Your task to perform on an android device: toggle notifications settings in the gmail app Image 0: 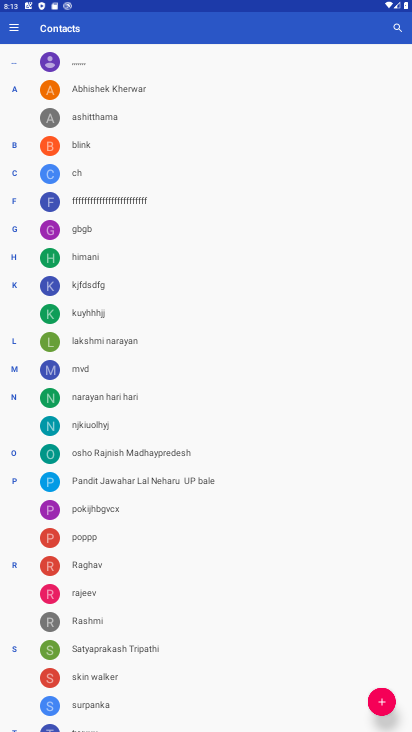
Step 0: press home button
Your task to perform on an android device: toggle notifications settings in the gmail app Image 1: 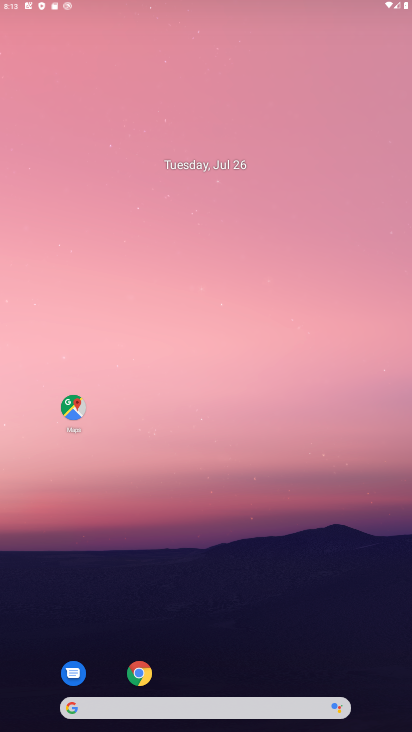
Step 1: drag from (189, 624) to (287, 99)
Your task to perform on an android device: toggle notifications settings in the gmail app Image 2: 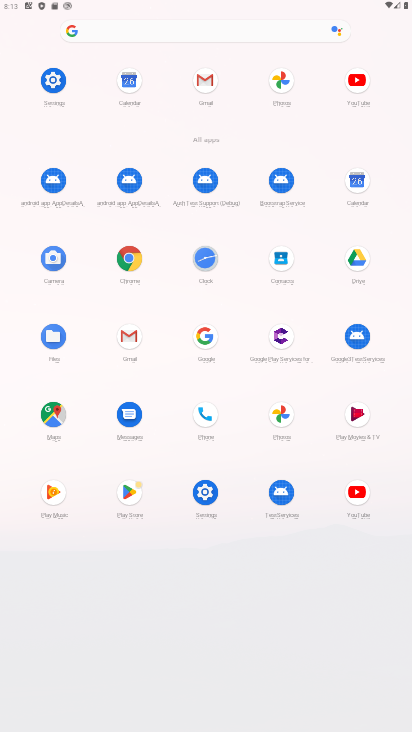
Step 2: click (111, 344)
Your task to perform on an android device: toggle notifications settings in the gmail app Image 3: 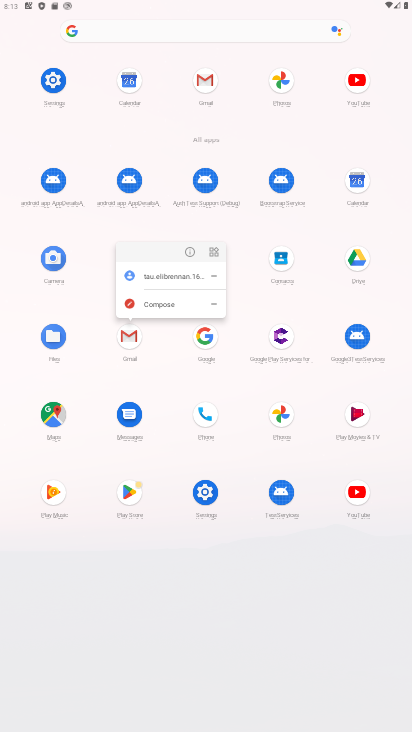
Step 3: click (190, 255)
Your task to perform on an android device: toggle notifications settings in the gmail app Image 4: 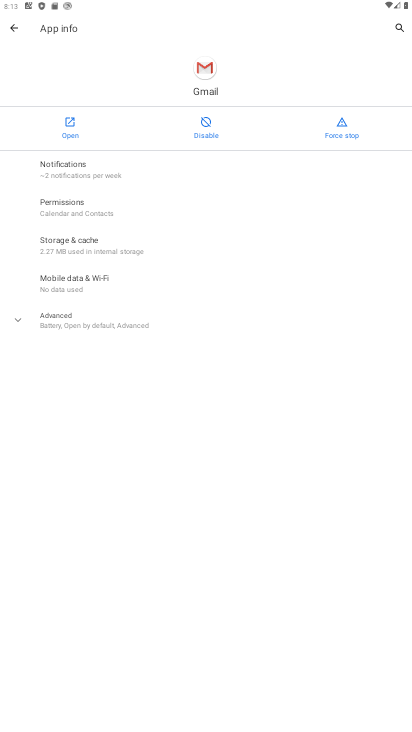
Step 4: click (57, 177)
Your task to perform on an android device: toggle notifications settings in the gmail app Image 5: 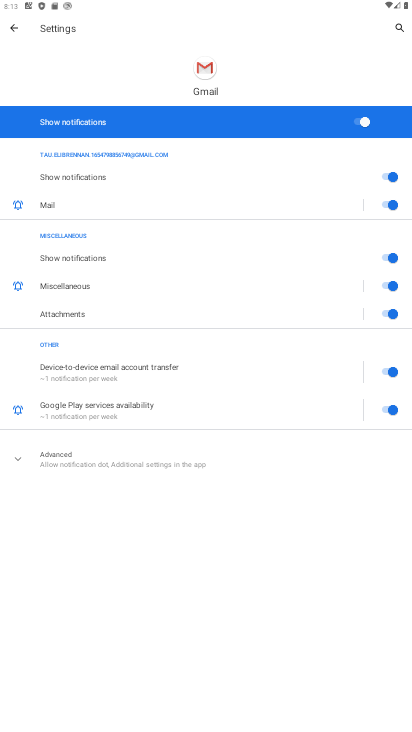
Step 5: click (223, 124)
Your task to perform on an android device: toggle notifications settings in the gmail app Image 6: 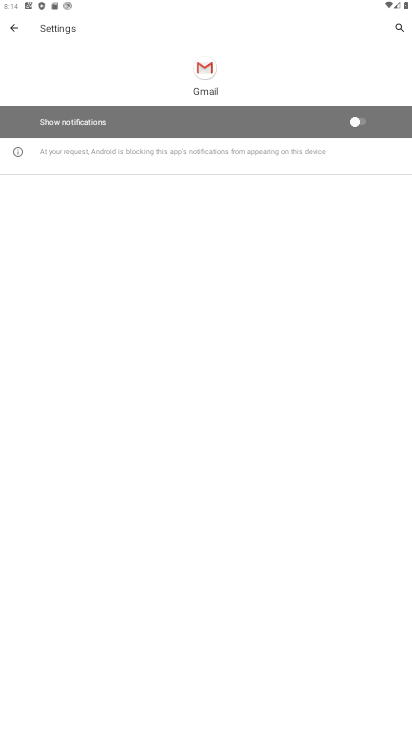
Step 6: task complete